Your task to perform on an android device: change your default location settings in chrome Image 0: 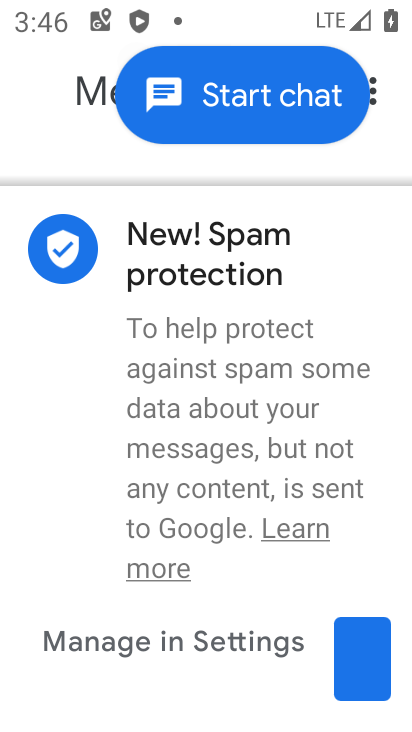
Step 0: press home button
Your task to perform on an android device: change your default location settings in chrome Image 1: 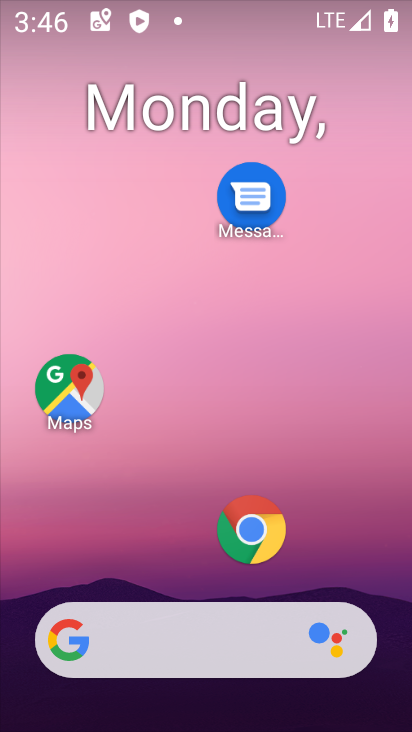
Step 1: click (254, 530)
Your task to perform on an android device: change your default location settings in chrome Image 2: 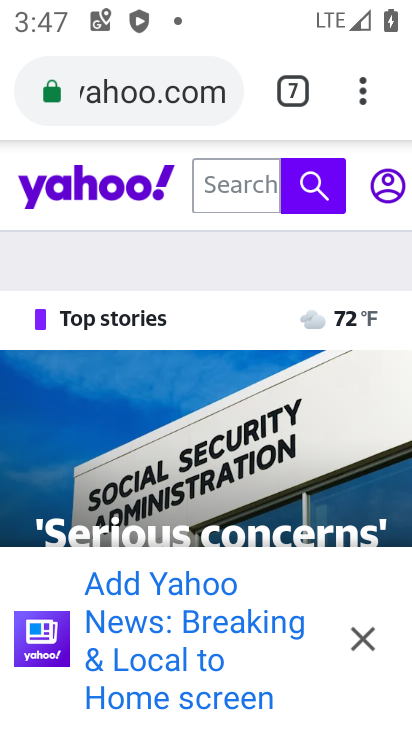
Step 2: click (368, 82)
Your task to perform on an android device: change your default location settings in chrome Image 3: 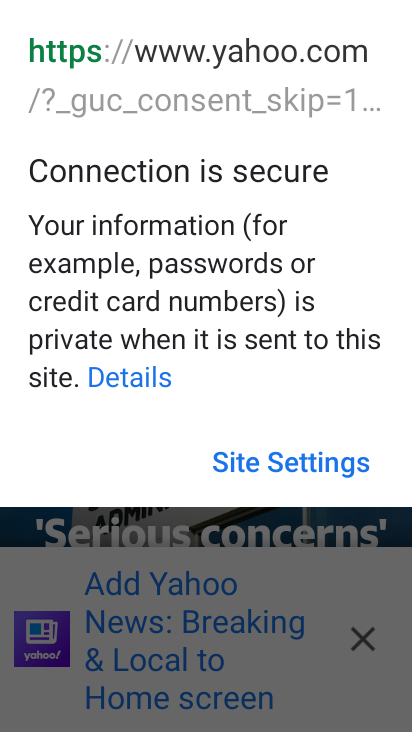
Step 3: click (135, 592)
Your task to perform on an android device: change your default location settings in chrome Image 4: 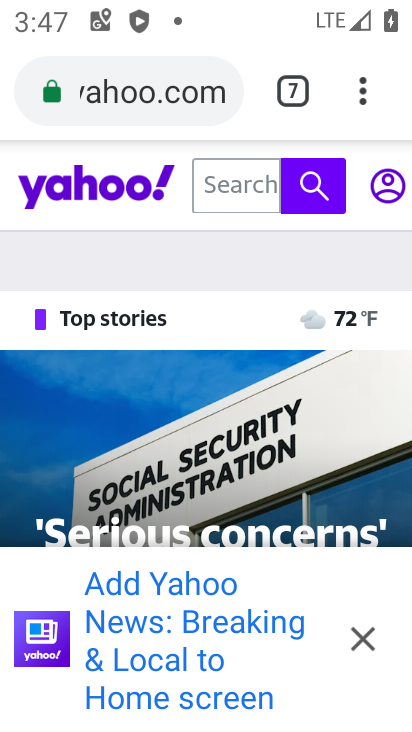
Step 4: drag from (355, 81) to (164, 535)
Your task to perform on an android device: change your default location settings in chrome Image 5: 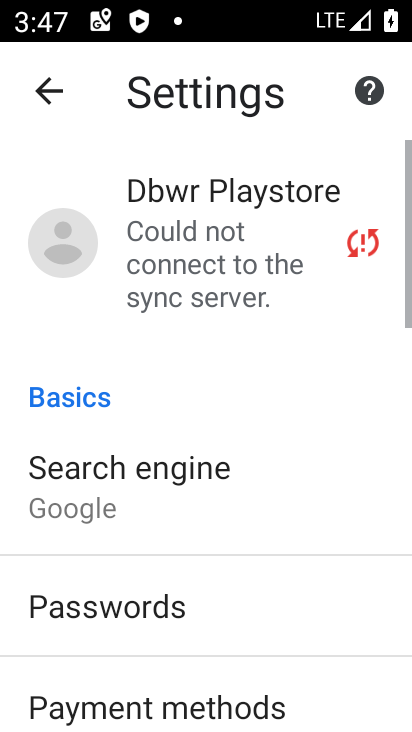
Step 5: drag from (172, 644) to (269, 104)
Your task to perform on an android device: change your default location settings in chrome Image 6: 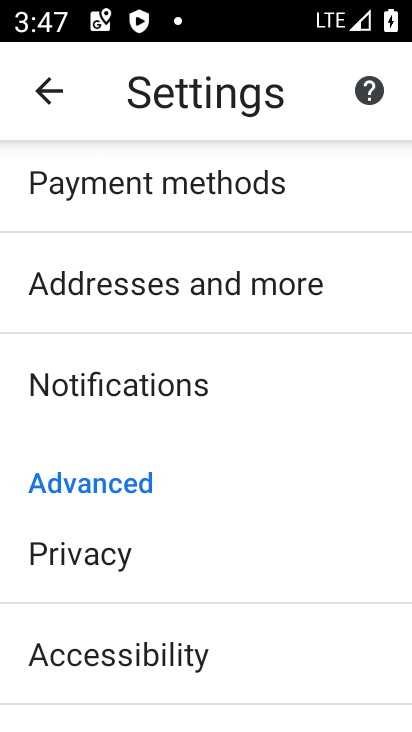
Step 6: drag from (187, 668) to (247, 229)
Your task to perform on an android device: change your default location settings in chrome Image 7: 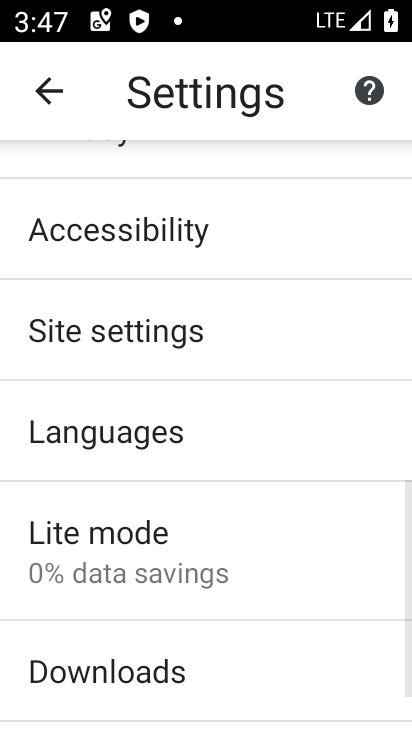
Step 7: click (132, 346)
Your task to perform on an android device: change your default location settings in chrome Image 8: 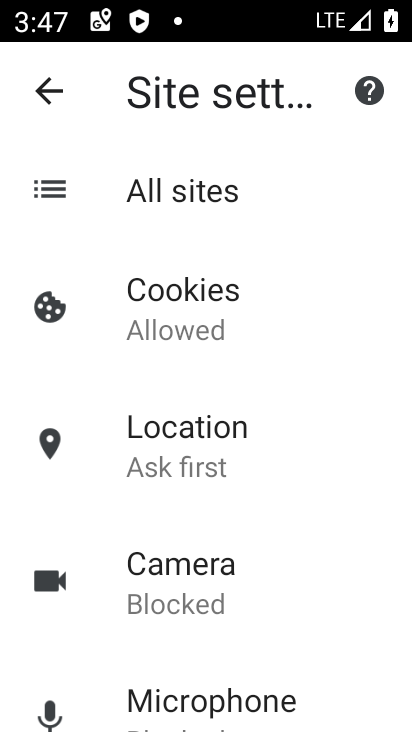
Step 8: click (178, 445)
Your task to perform on an android device: change your default location settings in chrome Image 9: 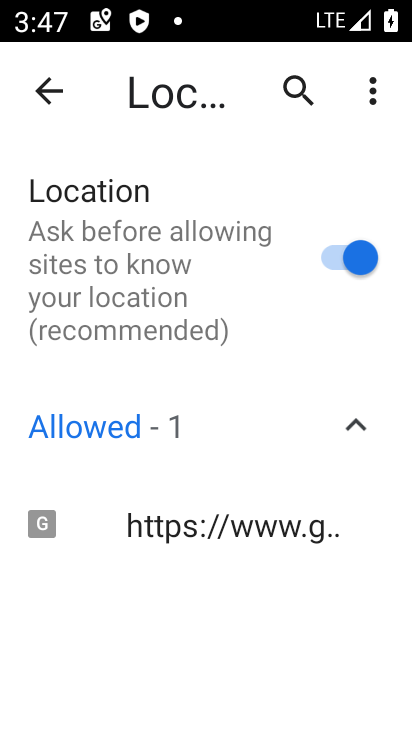
Step 9: click (343, 262)
Your task to perform on an android device: change your default location settings in chrome Image 10: 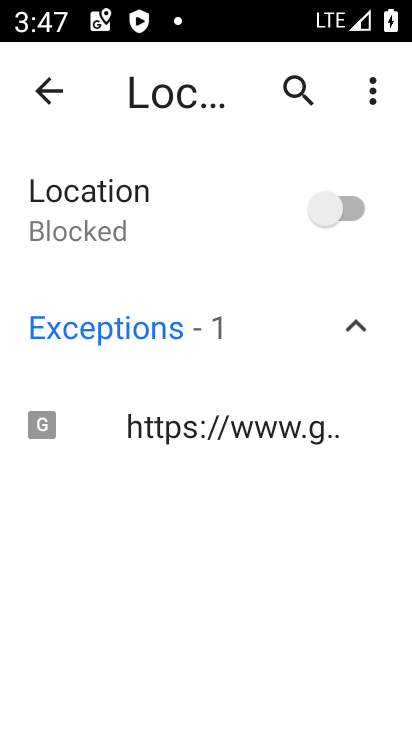
Step 10: task complete